Your task to perform on an android device: turn off airplane mode Image 0: 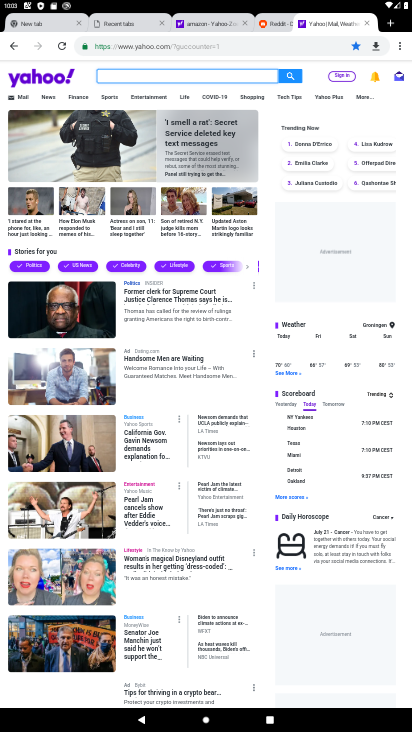
Step 0: click (395, 57)
Your task to perform on an android device: turn off airplane mode Image 1: 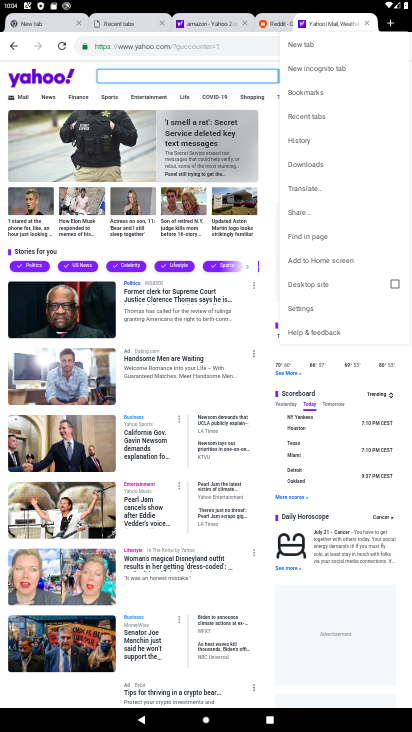
Step 1: task complete